Your task to perform on an android device: delete browsing data in the chrome app Image 0: 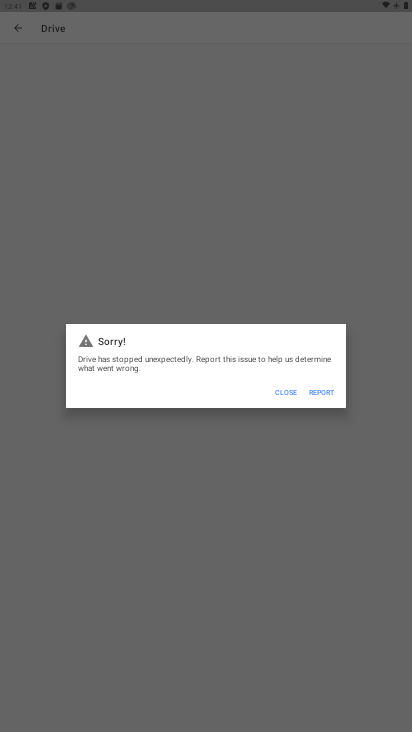
Step 0: press home button
Your task to perform on an android device: delete browsing data in the chrome app Image 1: 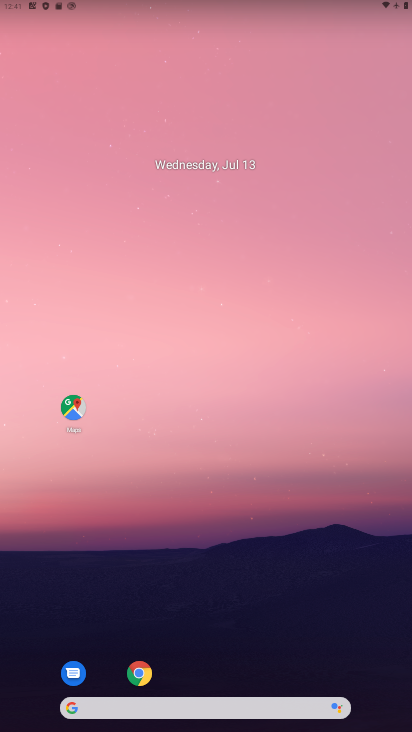
Step 1: click (135, 674)
Your task to perform on an android device: delete browsing data in the chrome app Image 2: 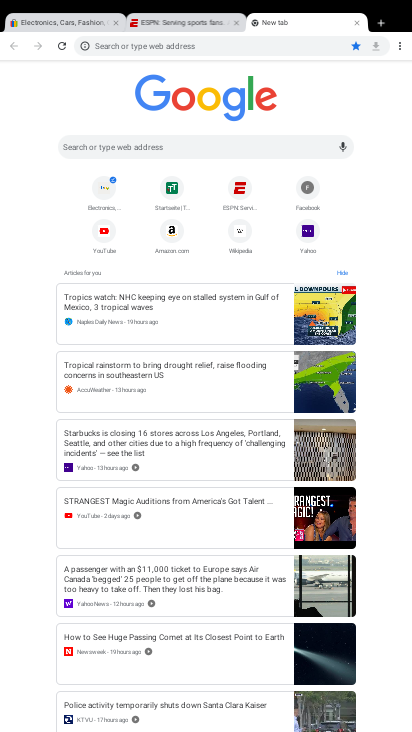
Step 2: click (411, 51)
Your task to perform on an android device: delete browsing data in the chrome app Image 3: 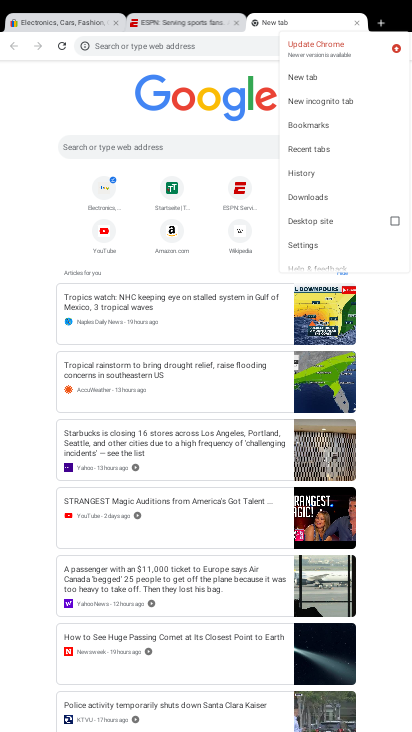
Step 3: click (335, 165)
Your task to perform on an android device: delete browsing data in the chrome app Image 4: 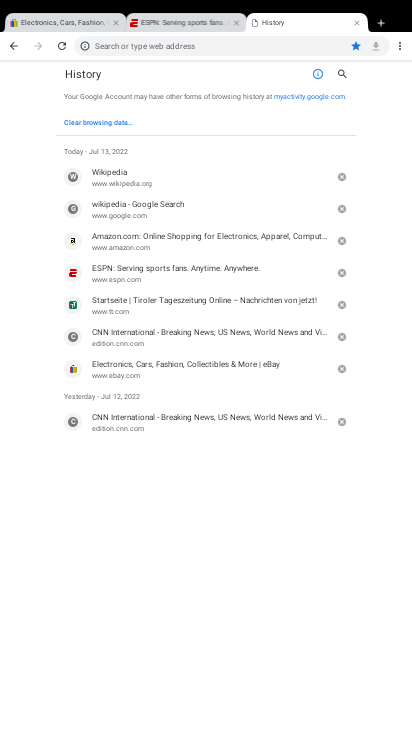
Step 4: click (133, 125)
Your task to perform on an android device: delete browsing data in the chrome app Image 5: 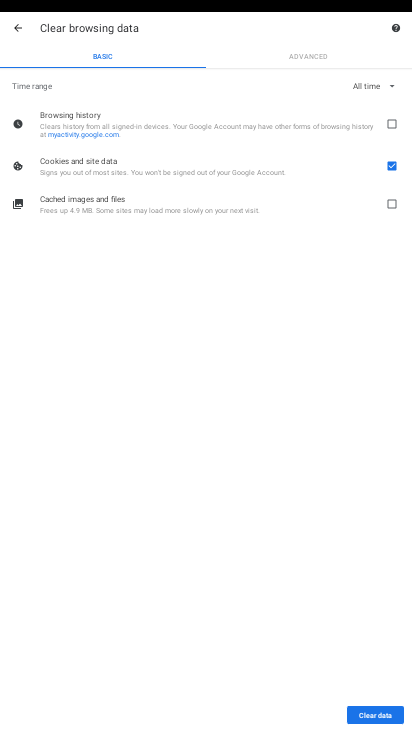
Step 5: click (372, 719)
Your task to perform on an android device: delete browsing data in the chrome app Image 6: 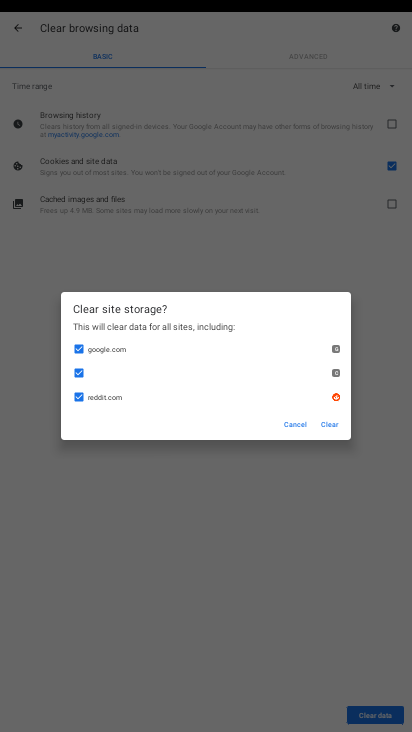
Step 6: click (328, 422)
Your task to perform on an android device: delete browsing data in the chrome app Image 7: 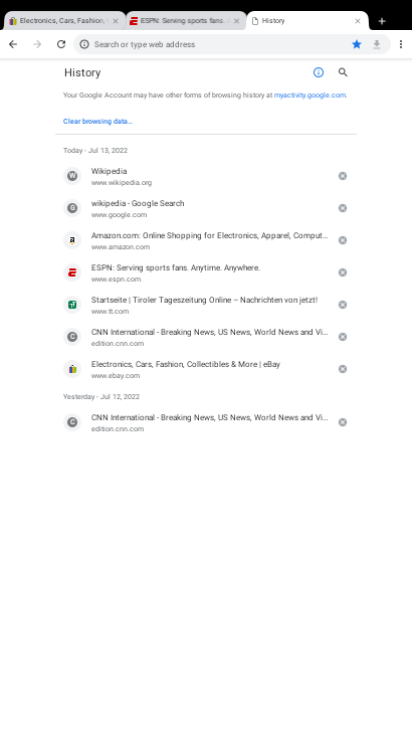
Step 7: task complete